Your task to perform on an android device: set default search engine in the chrome app Image 0: 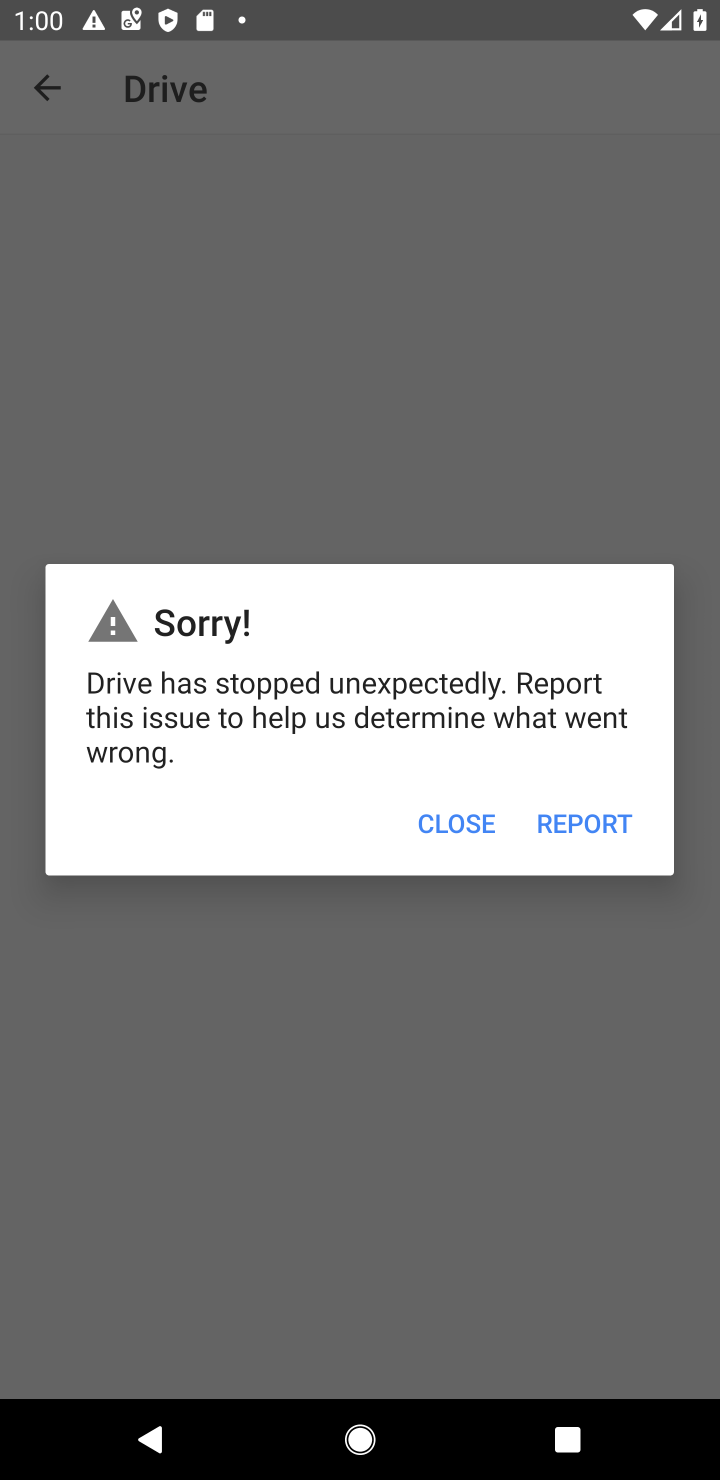
Step 0: click (430, 979)
Your task to perform on an android device: set default search engine in the chrome app Image 1: 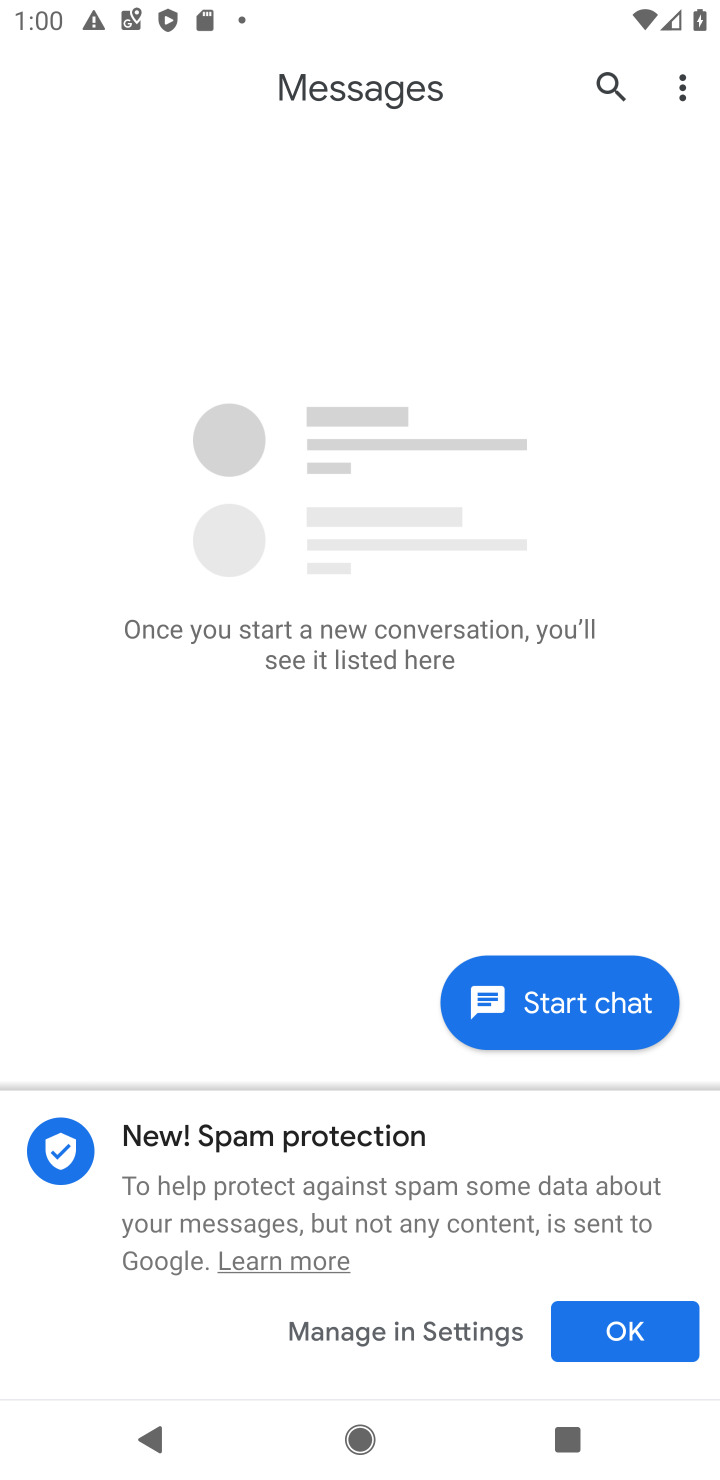
Step 1: press home button
Your task to perform on an android device: set default search engine in the chrome app Image 2: 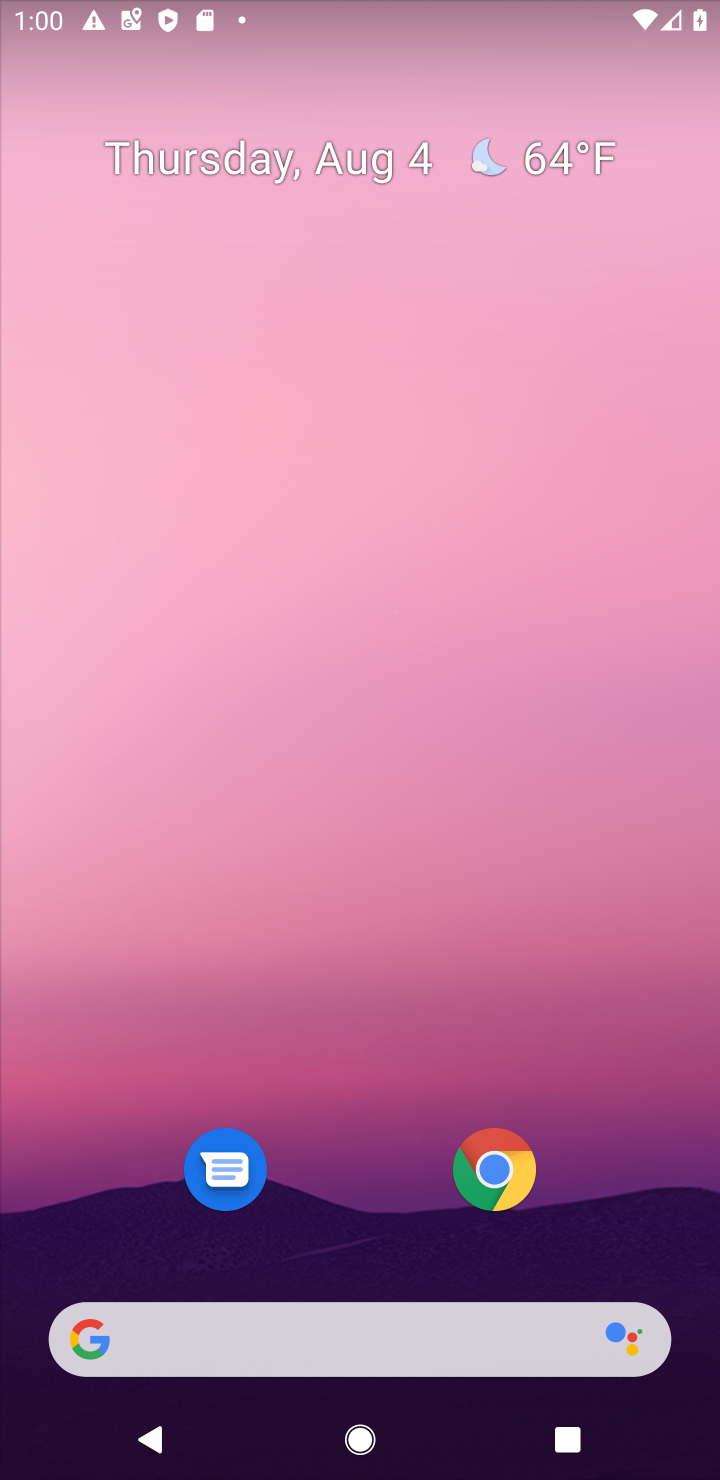
Step 2: drag from (364, 1238) to (394, 328)
Your task to perform on an android device: set default search engine in the chrome app Image 3: 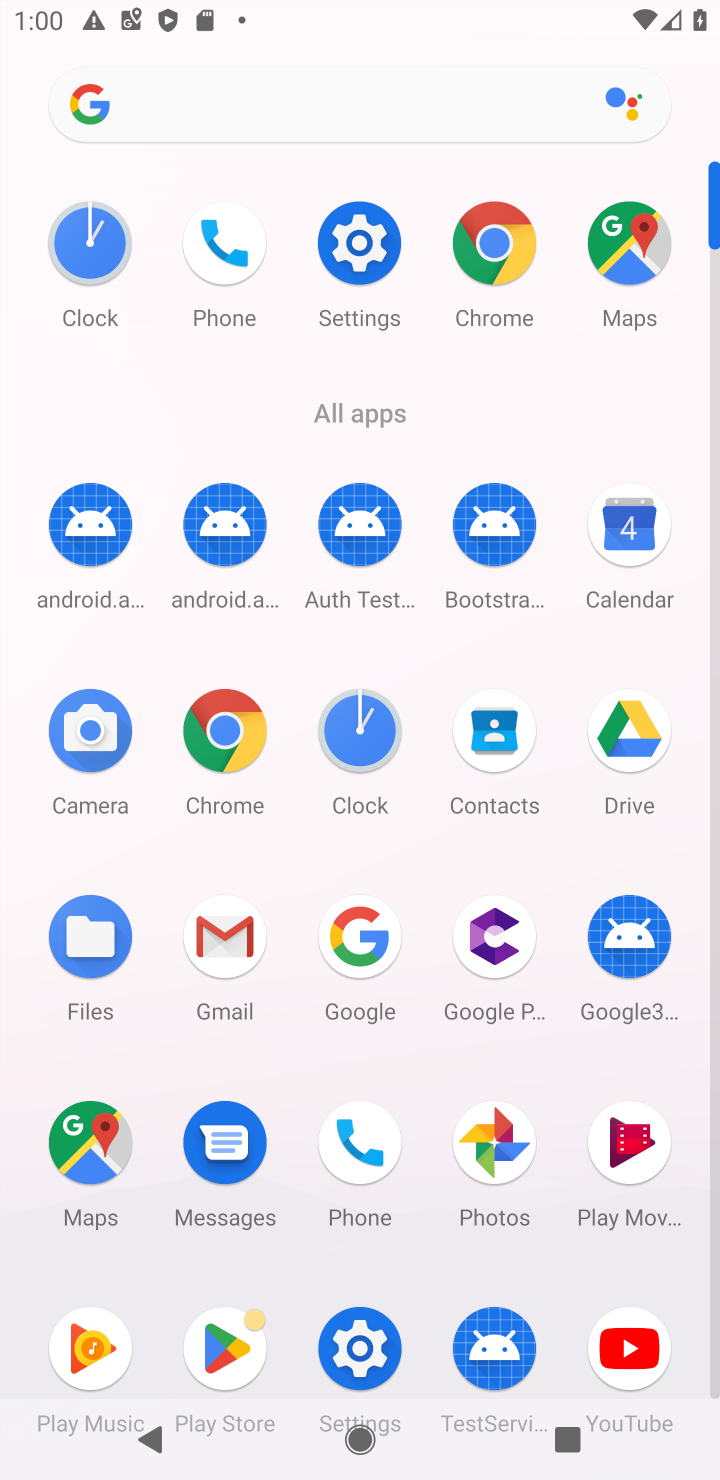
Step 3: click (241, 769)
Your task to perform on an android device: set default search engine in the chrome app Image 4: 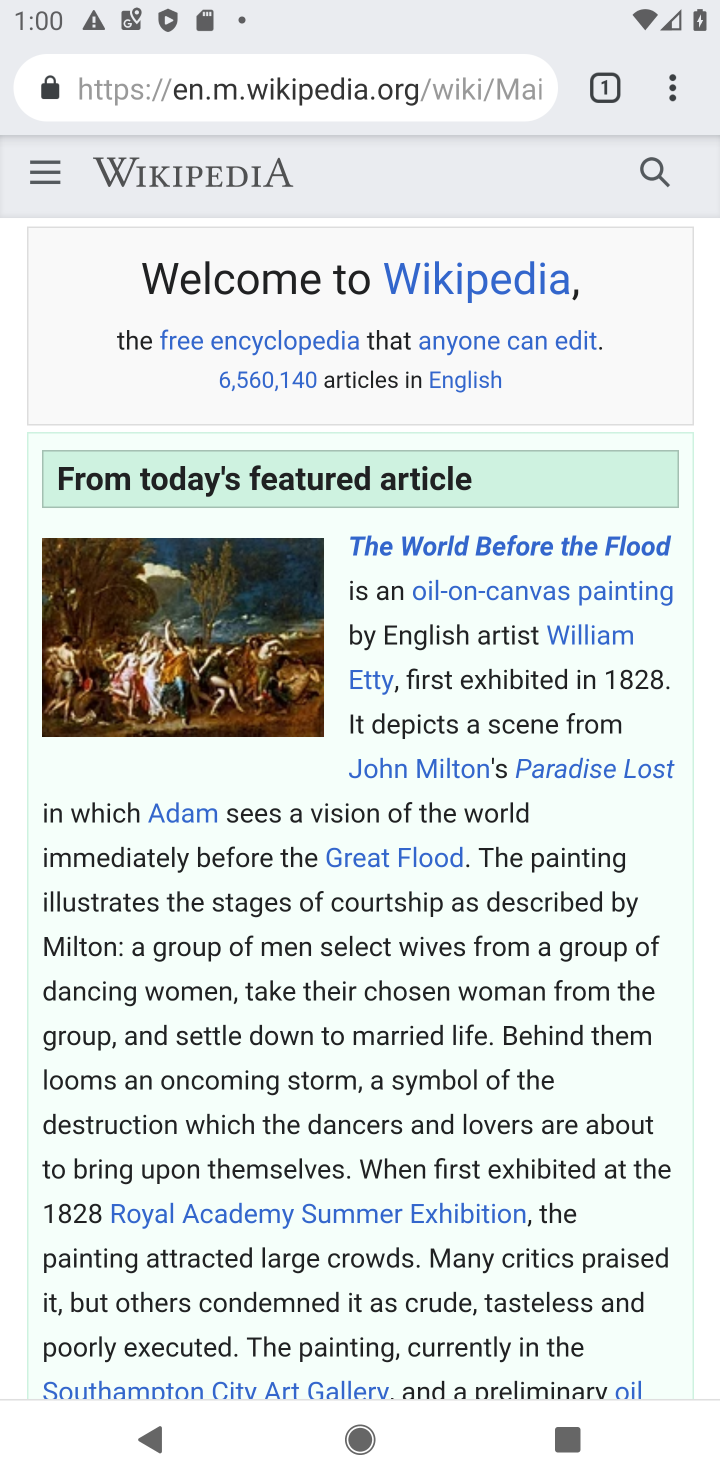
Step 4: click (670, 90)
Your task to perform on an android device: set default search engine in the chrome app Image 5: 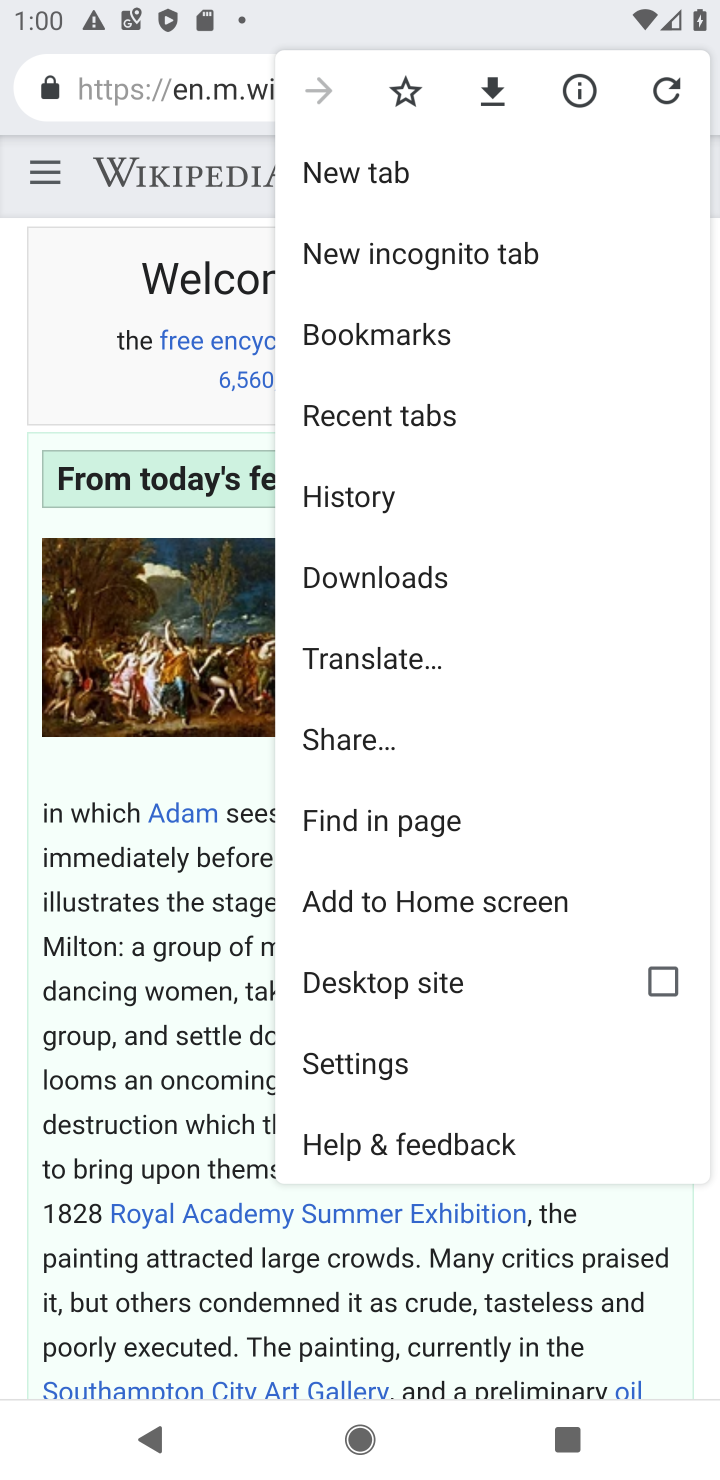
Step 5: click (319, 1068)
Your task to perform on an android device: set default search engine in the chrome app Image 6: 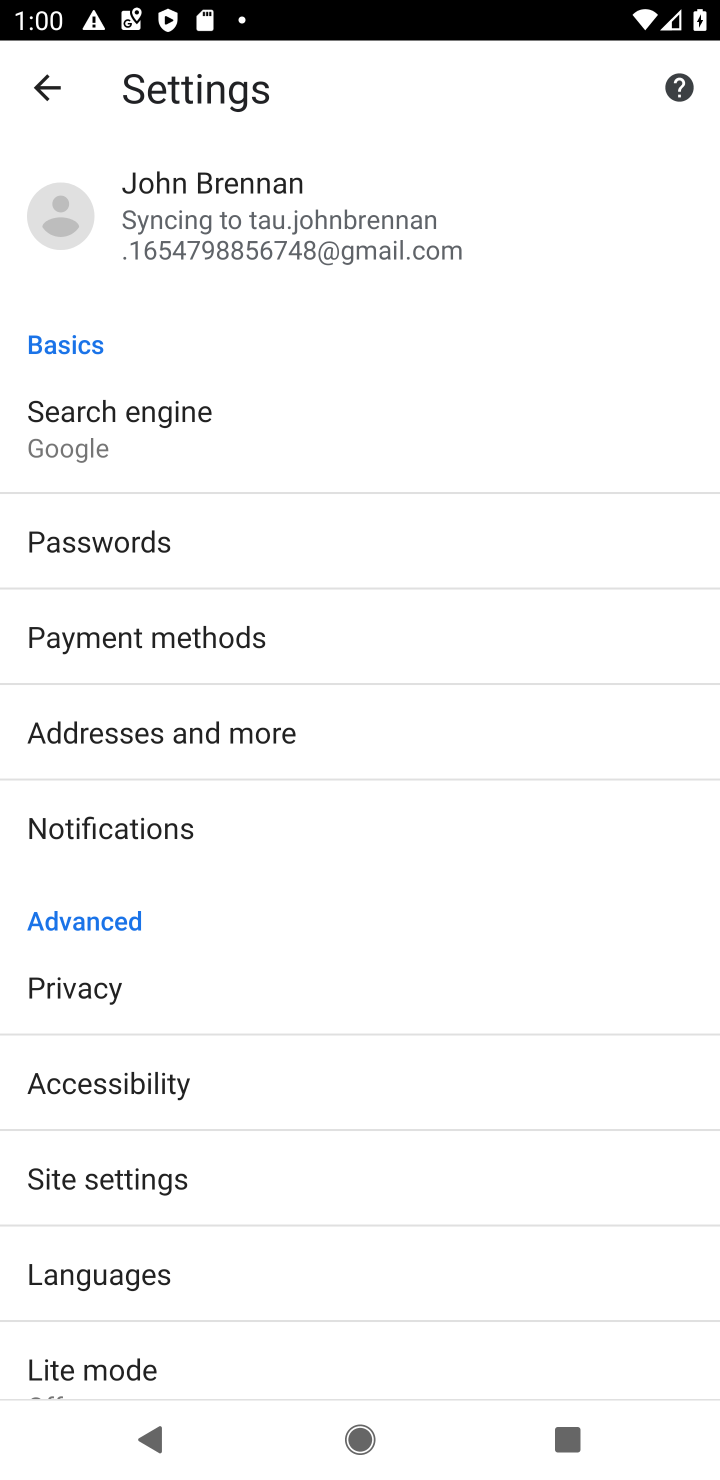
Step 6: click (149, 422)
Your task to perform on an android device: set default search engine in the chrome app Image 7: 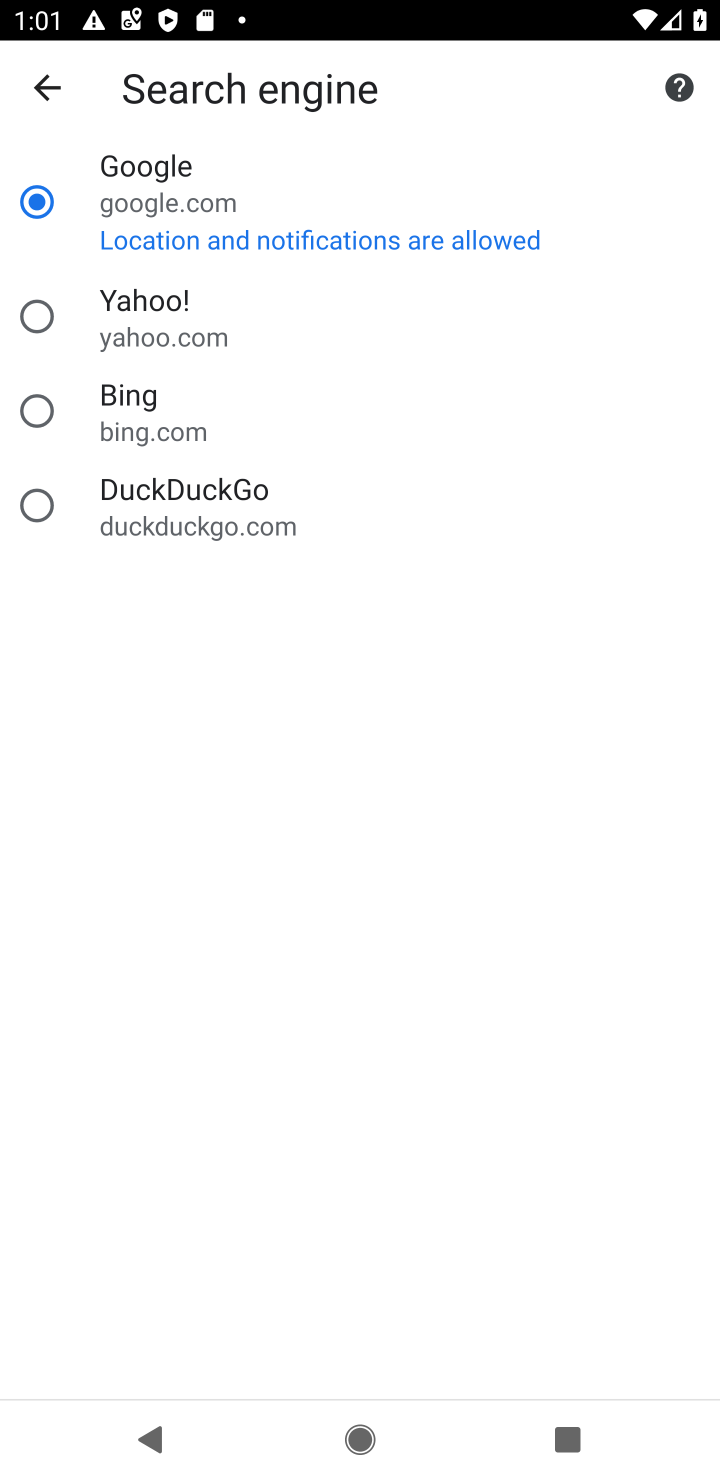
Step 7: task complete